Your task to perform on an android device: turn on javascript in the chrome app Image 0: 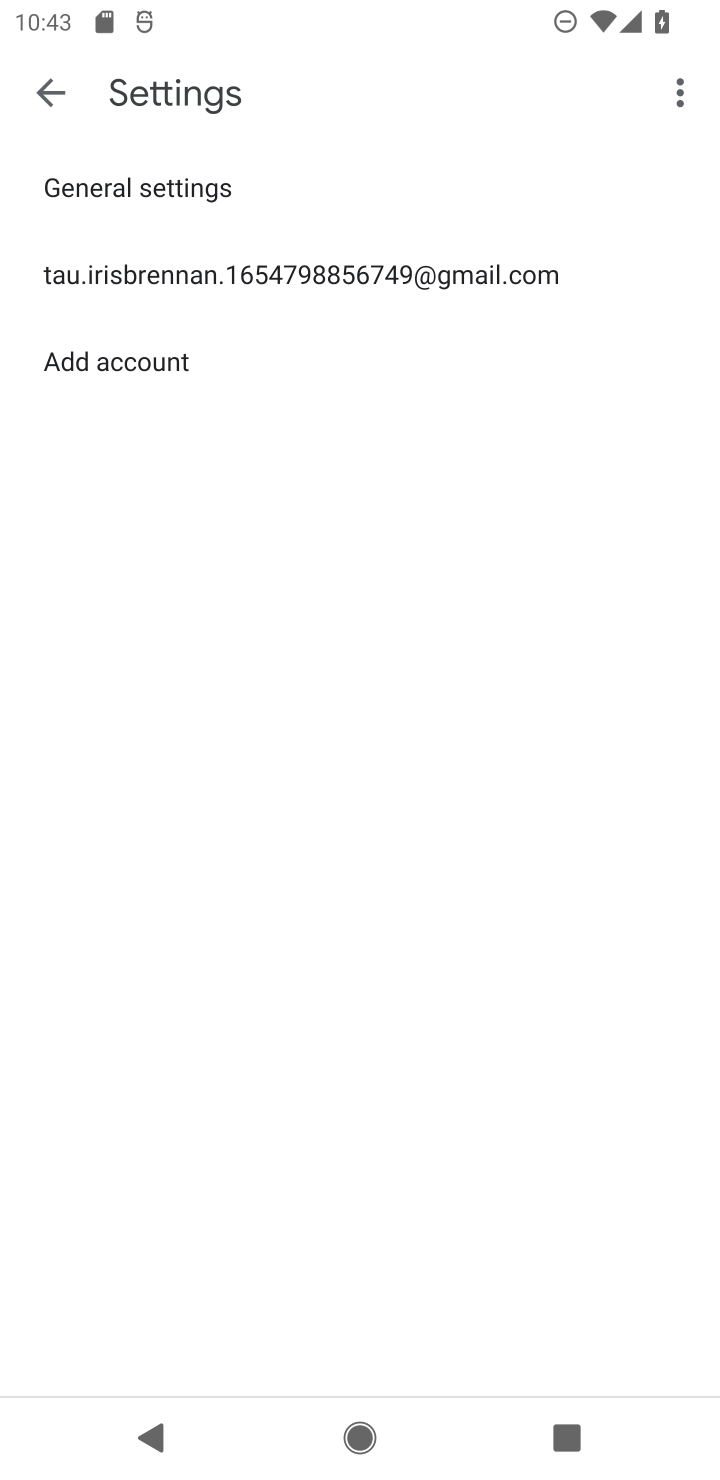
Step 0: press home button
Your task to perform on an android device: turn on javascript in the chrome app Image 1: 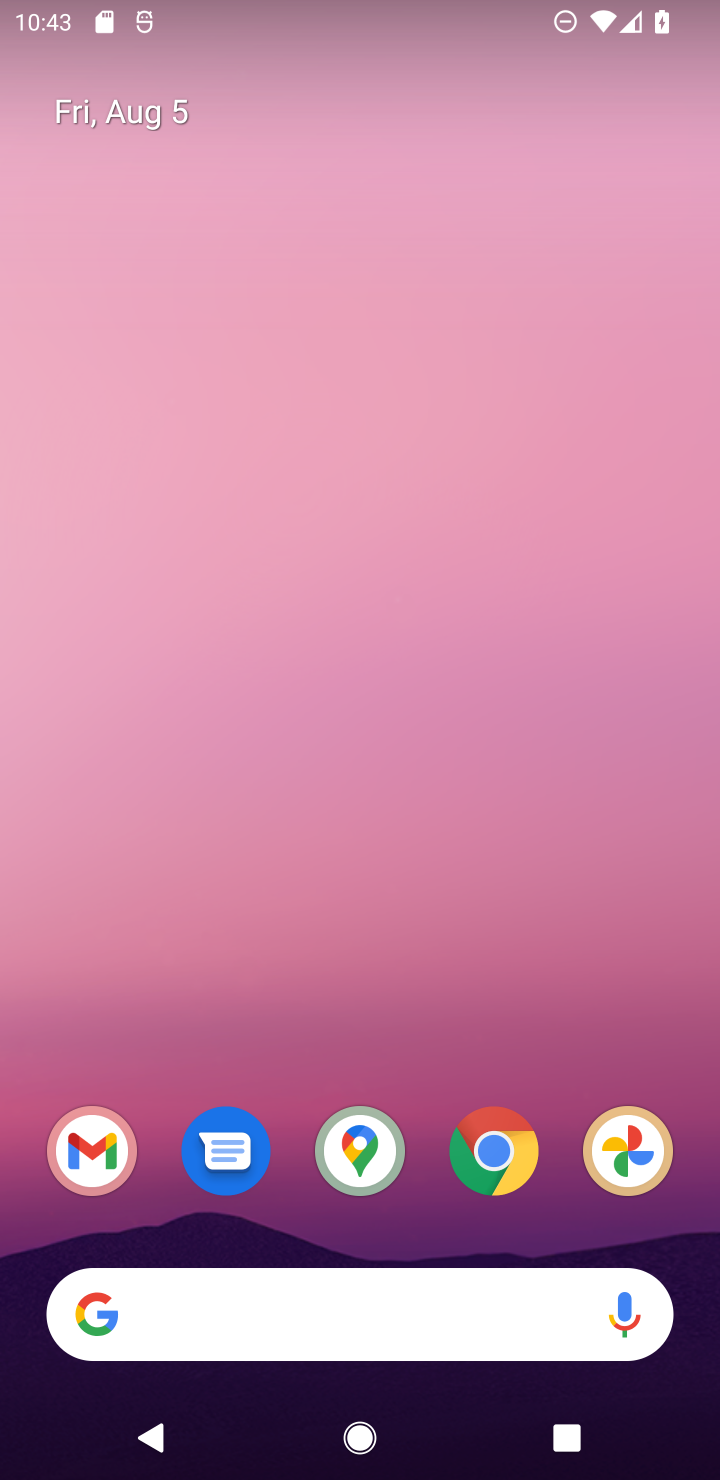
Step 1: click (507, 1151)
Your task to perform on an android device: turn on javascript in the chrome app Image 2: 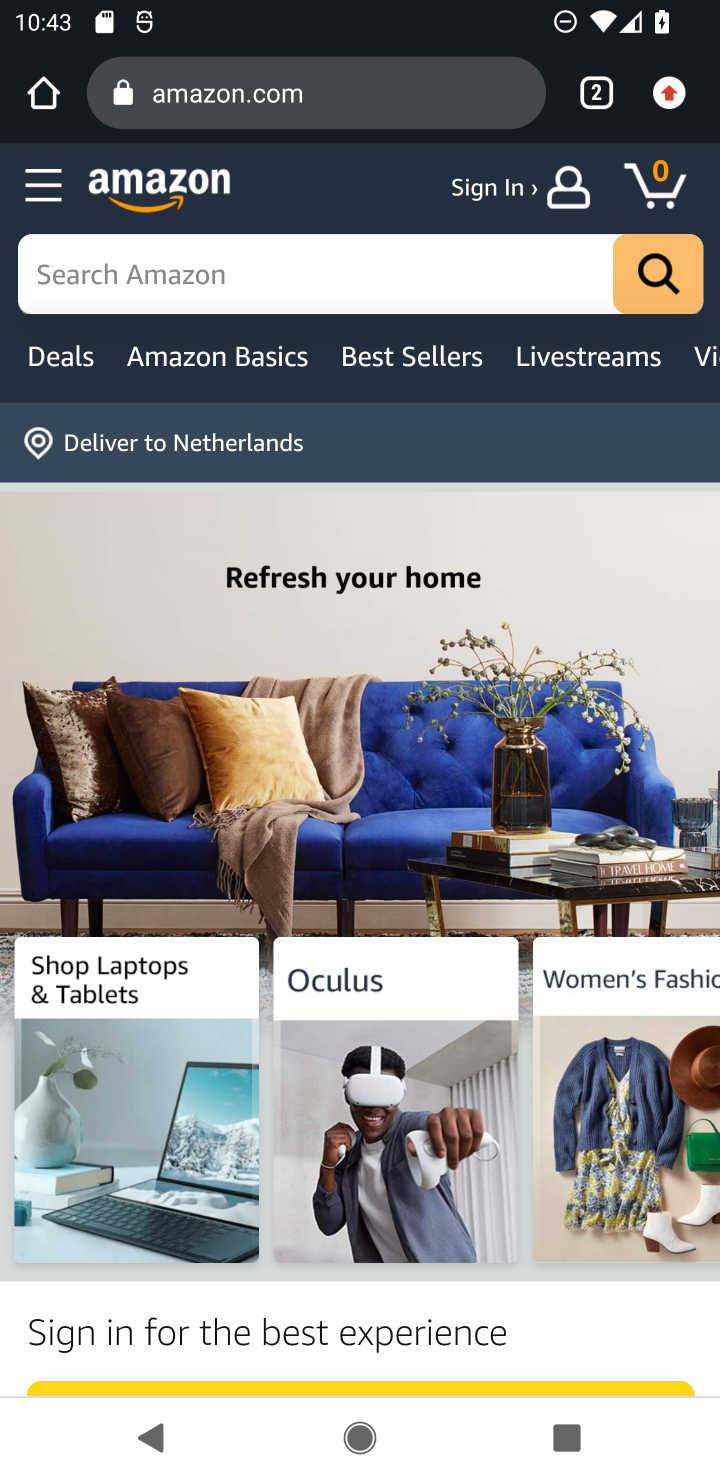
Step 2: click (670, 107)
Your task to perform on an android device: turn on javascript in the chrome app Image 3: 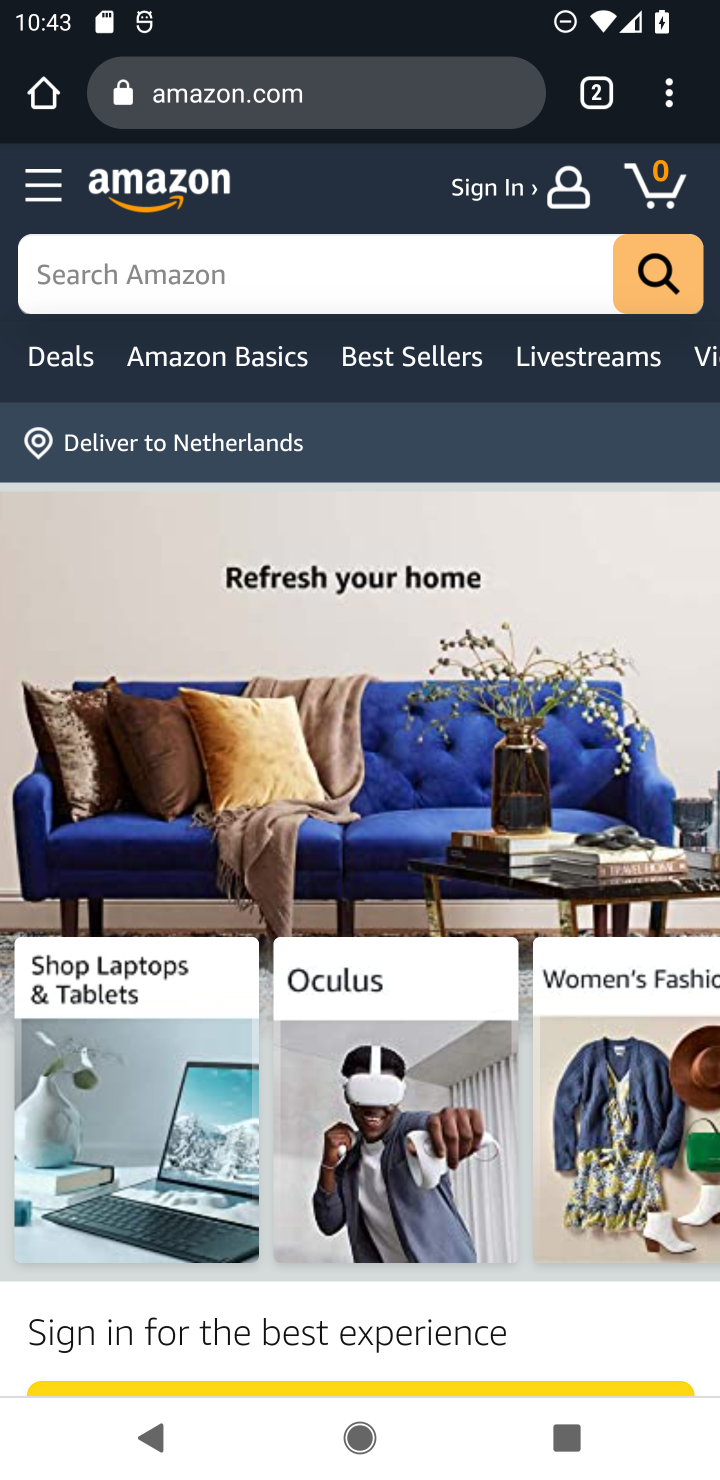
Step 3: click (670, 94)
Your task to perform on an android device: turn on javascript in the chrome app Image 4: 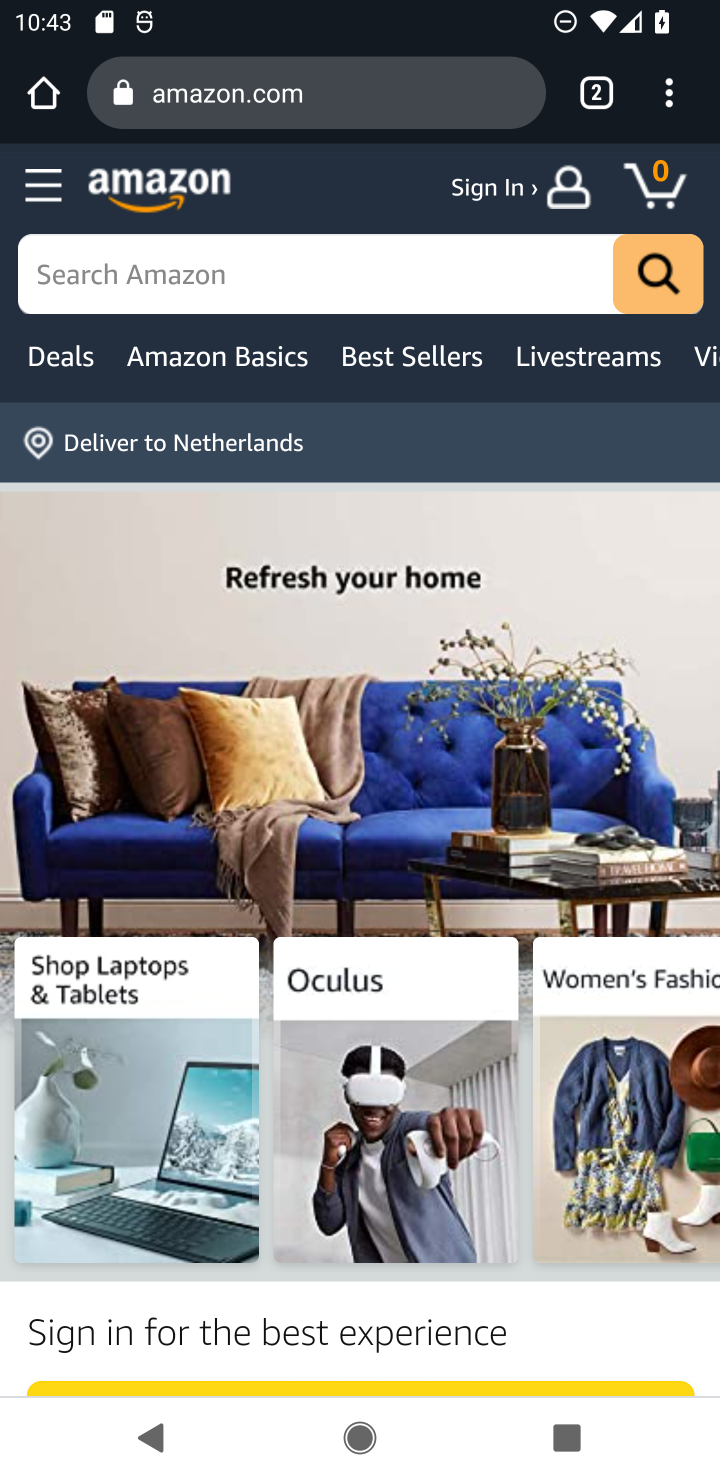
Step 4: click (670, 94)
Your task to perform on an android device: turn on javascript in the chrome app Image 5: 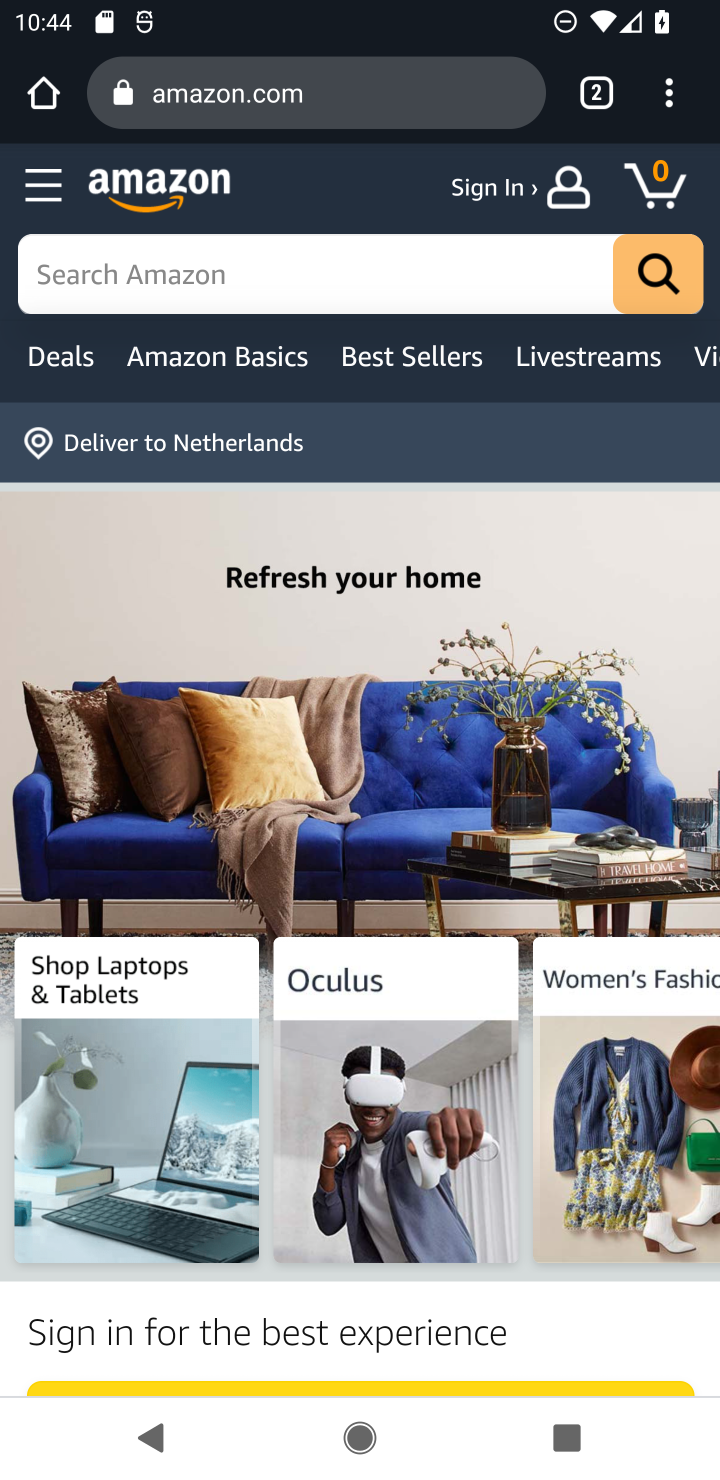
Step 5: click (670, 94)
Your task to perform on an android device: turn on javascript in the chrome app Image 6: 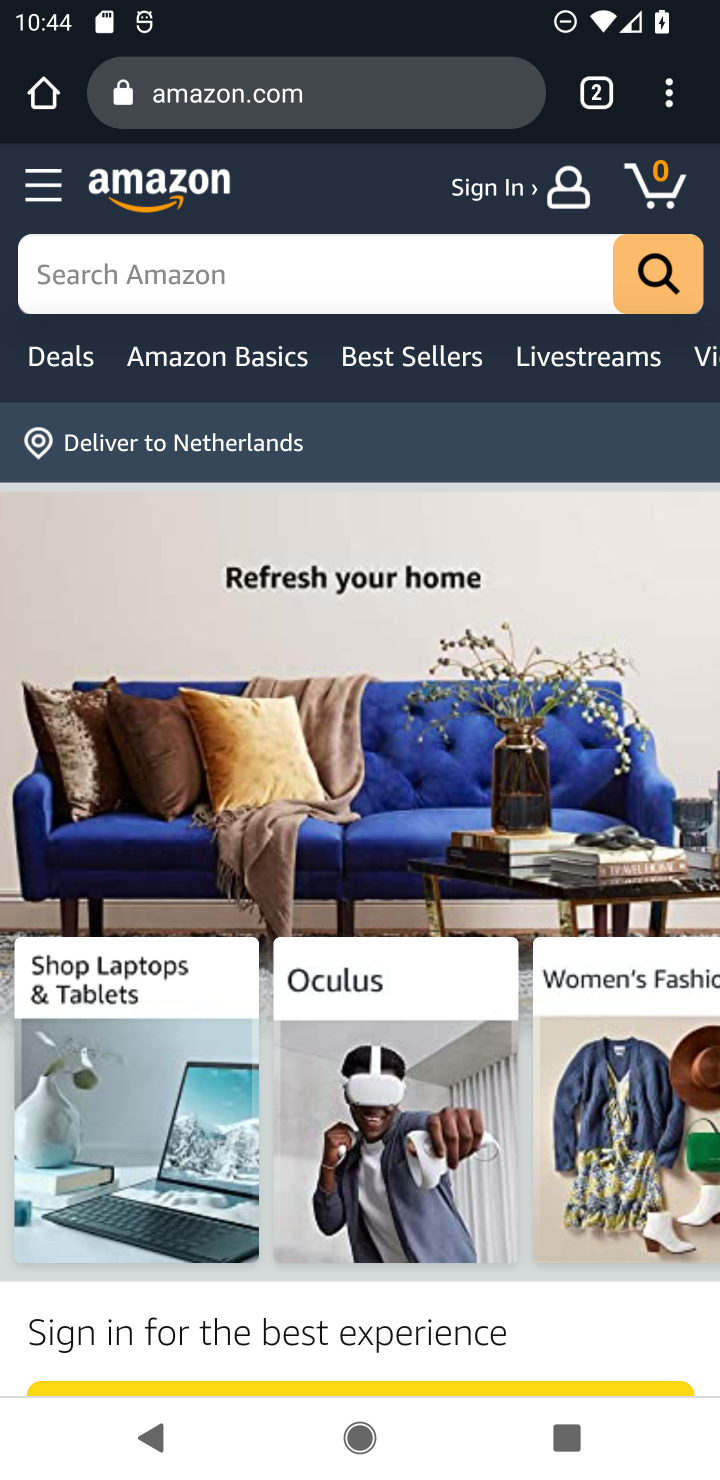
Step 6: click (675, 95)
Your task to perform on an android device: turn on javascript in the chrome app Image 7: 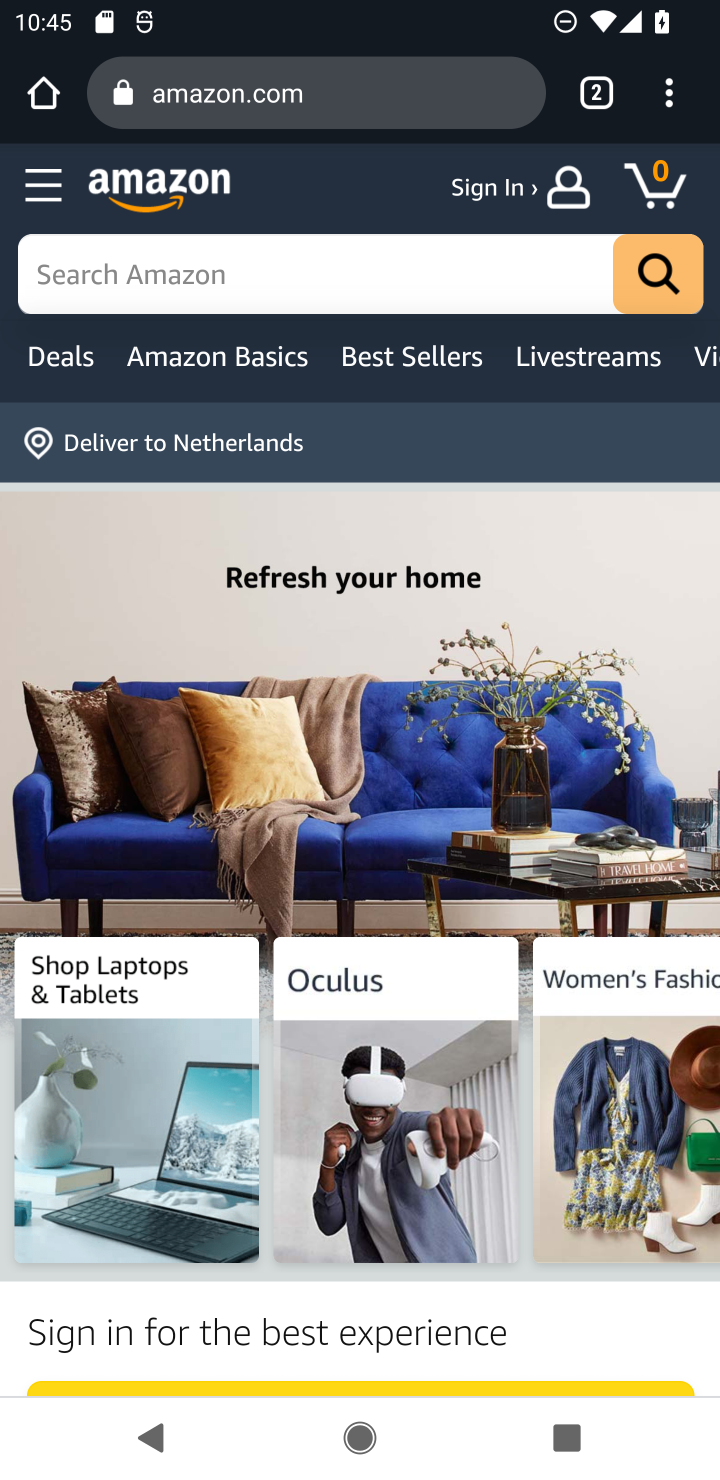
Step 7: click (676, 98)
Your task to perform on an android device: turn on javascript in the chrome app Image 8: 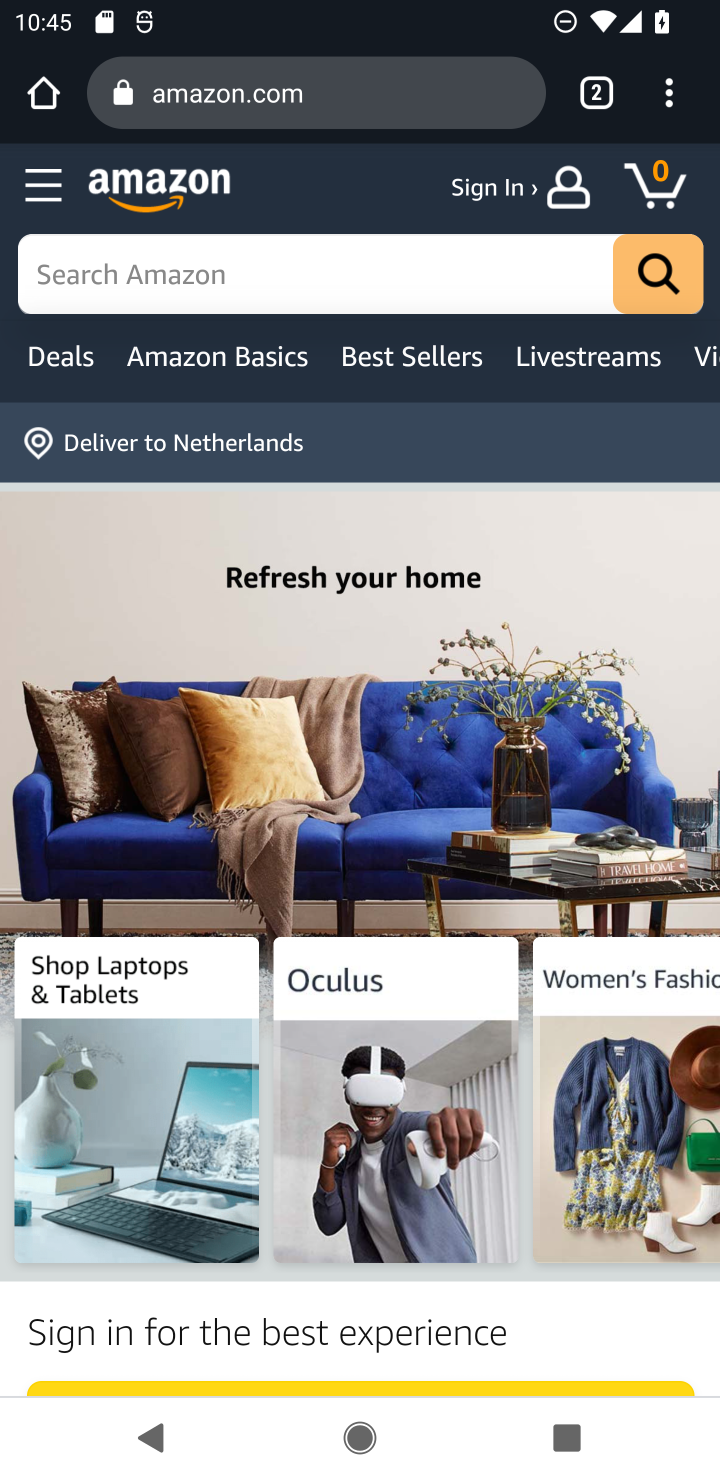
Step 8: click (676, 98)
Your task to perform on an android device: turn on javascript in the chrome app Image 9: 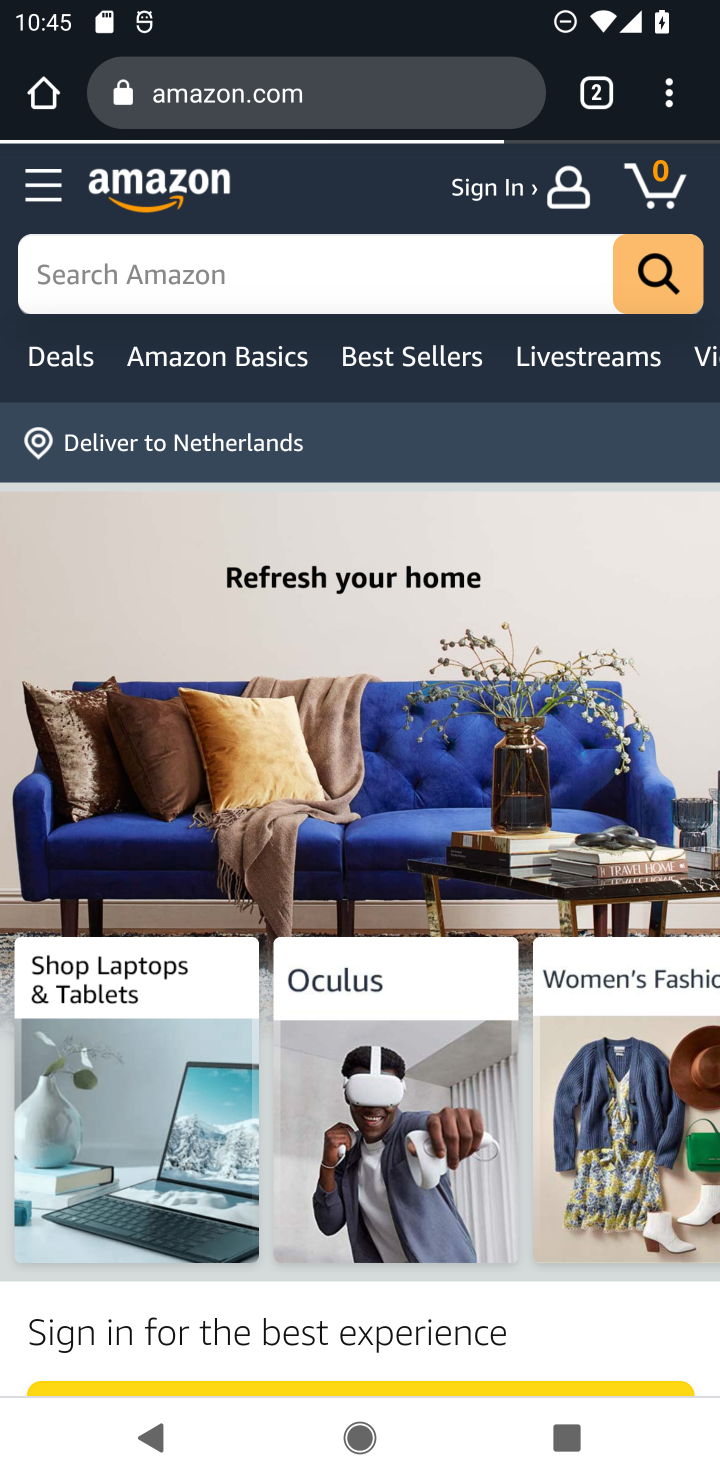
Step 9: click (599, 98)
Your task to perform on an android device: turn on javascript in the chrome app Image 10: 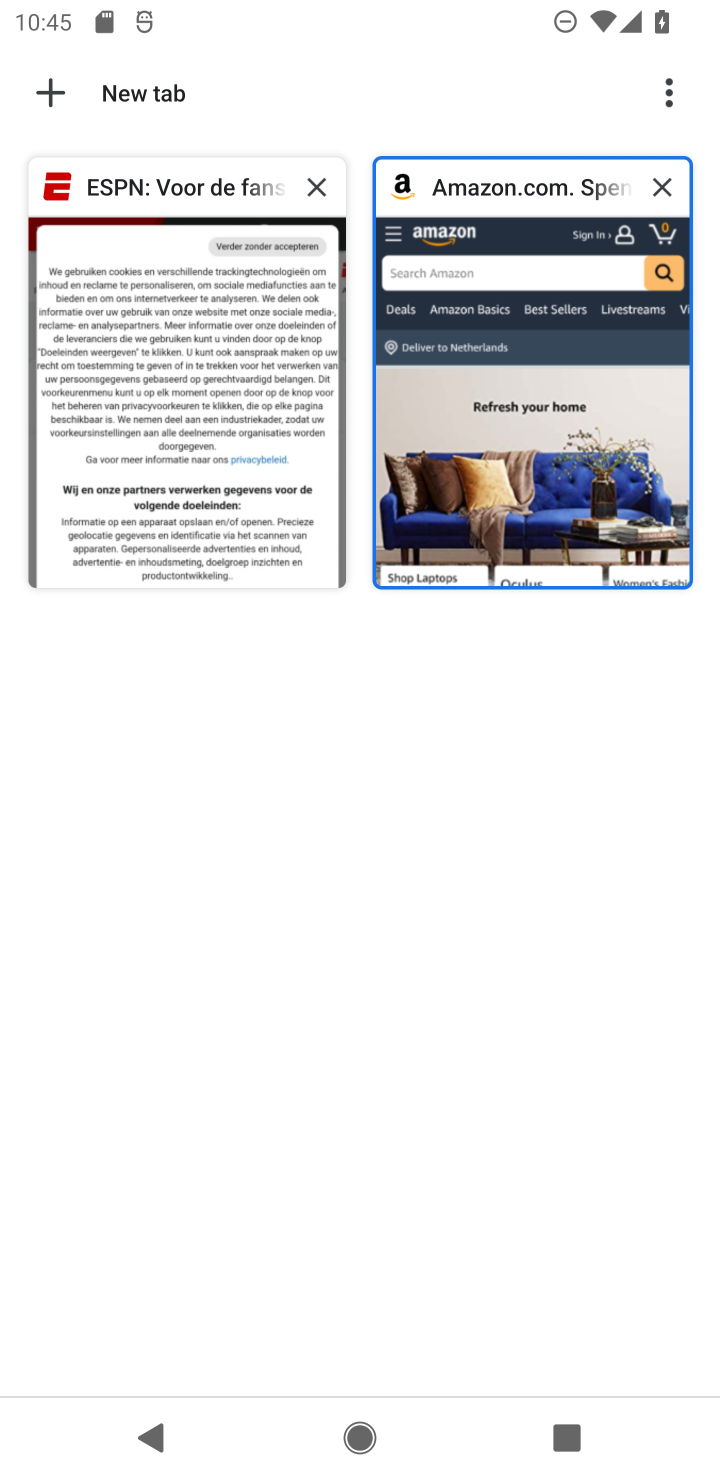
Step 10: click (665, 203)
Your task to perform on an android device: turn on javascript in the chrome app Image 11: 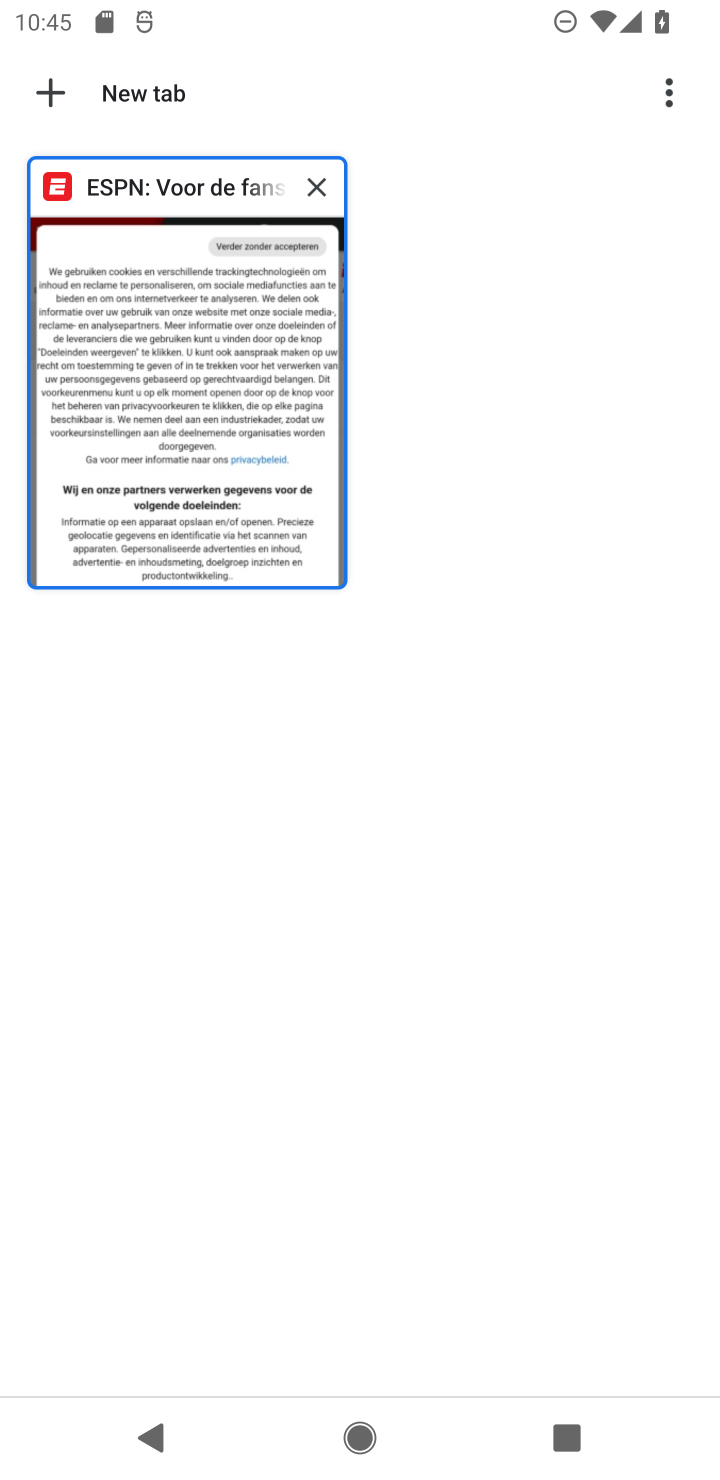
Step 11: click (312, 182)
Your task to perform on an android device: turn on javascript in the chrome app Image 12: 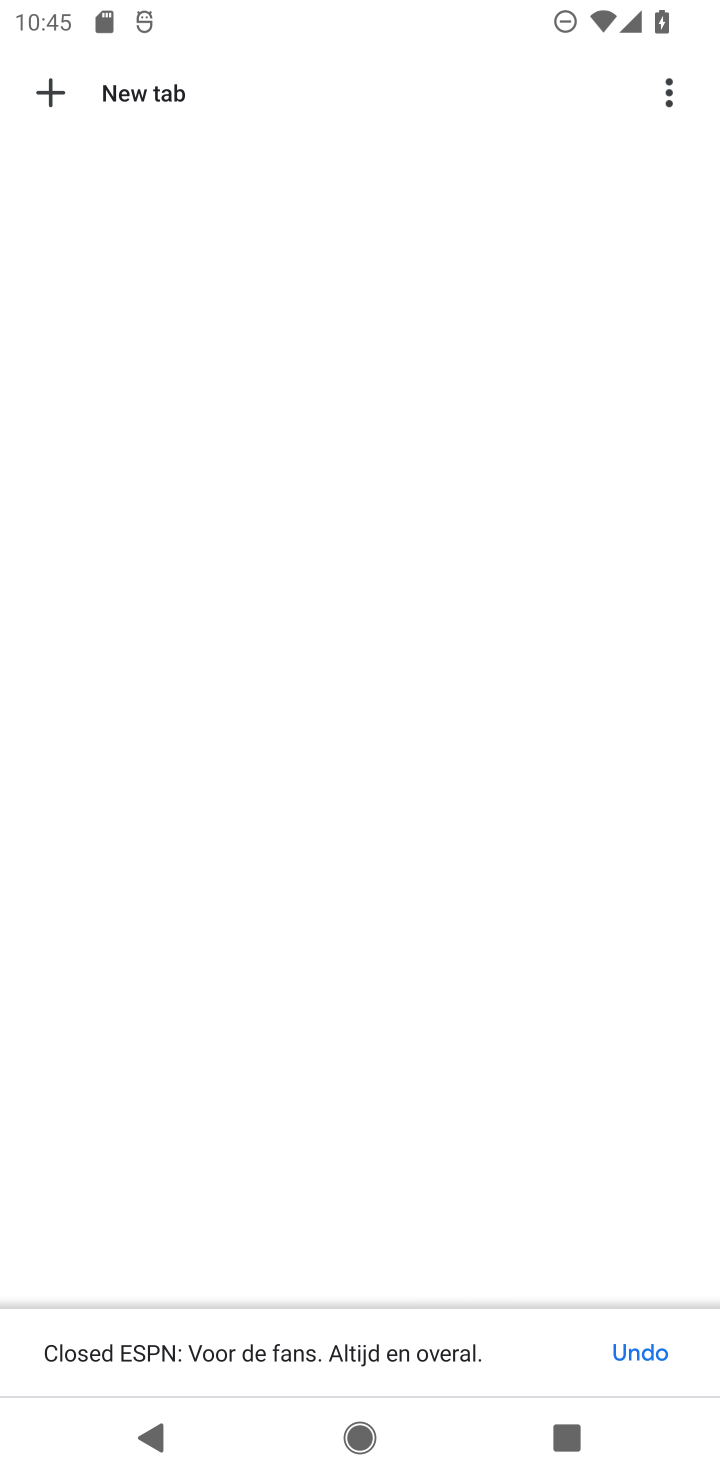
Step 12: click (40, 106)
Your task to perform on an android device: turn on javascript in the chrome app Image 13: 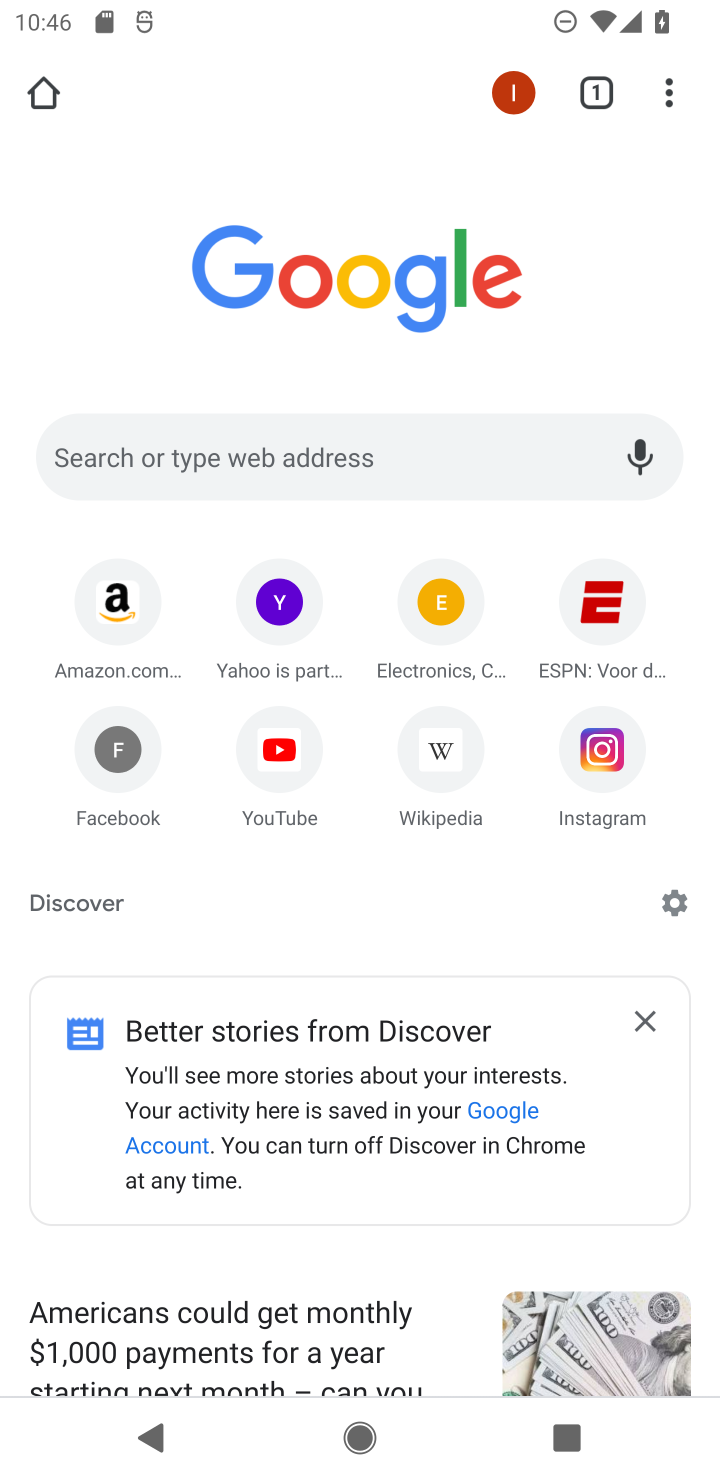
Step 13: click (666, 97)
Your task to perform on an android device: turn on javascript in the chrome app Image 14: 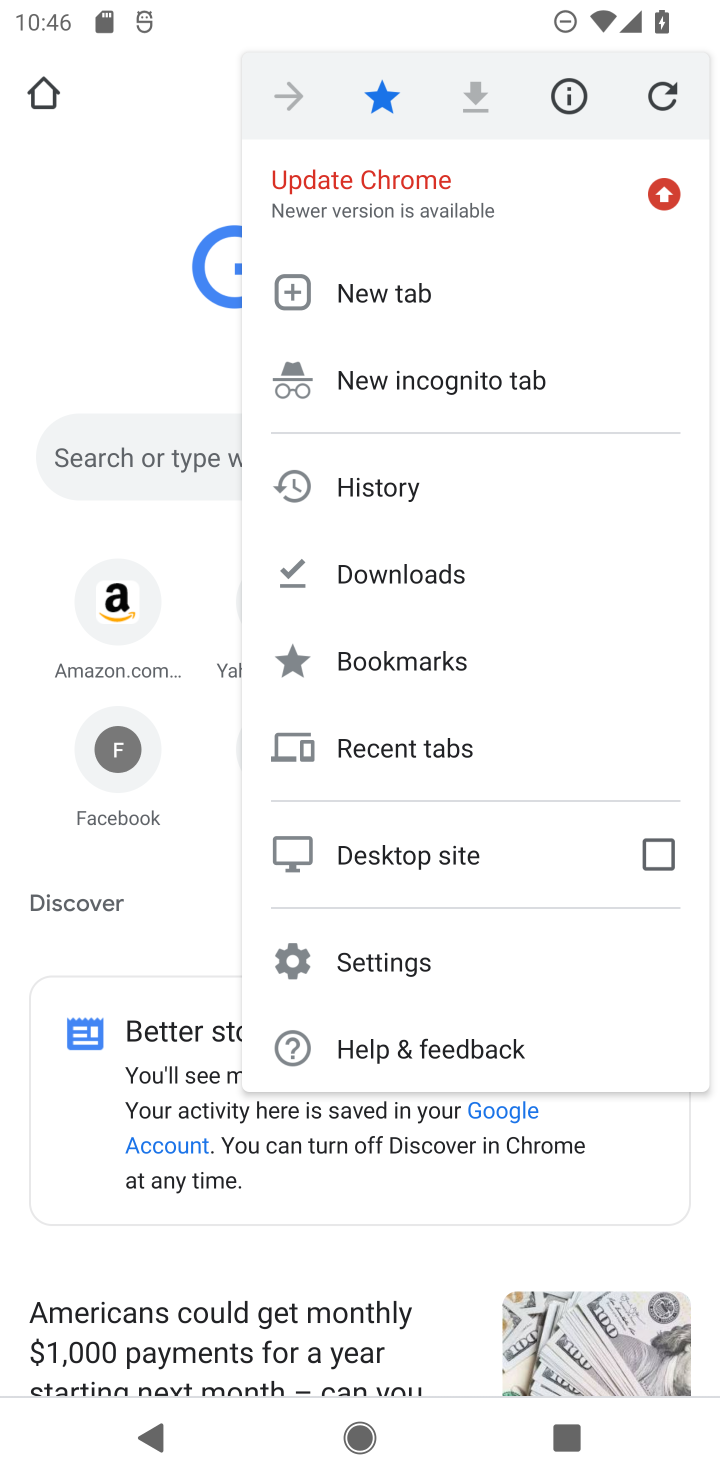
Step 14: click (371, 957)
Your task to perform on an android device: turn on javascript in the chrome app Image 15: 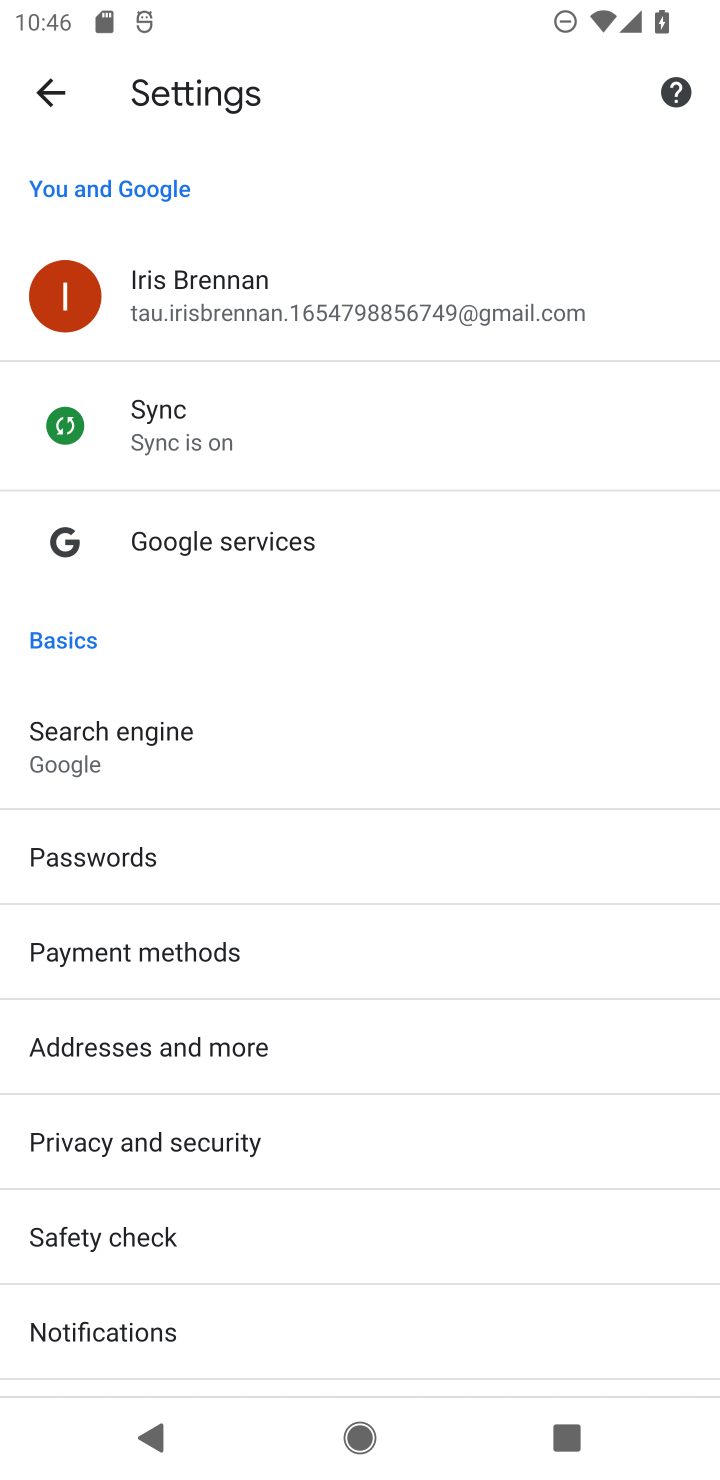
Step 15: drag from (212, 1205) to (267, 727)
Your task to perform on an android device: turn on javascript in the chrome app Image 16: 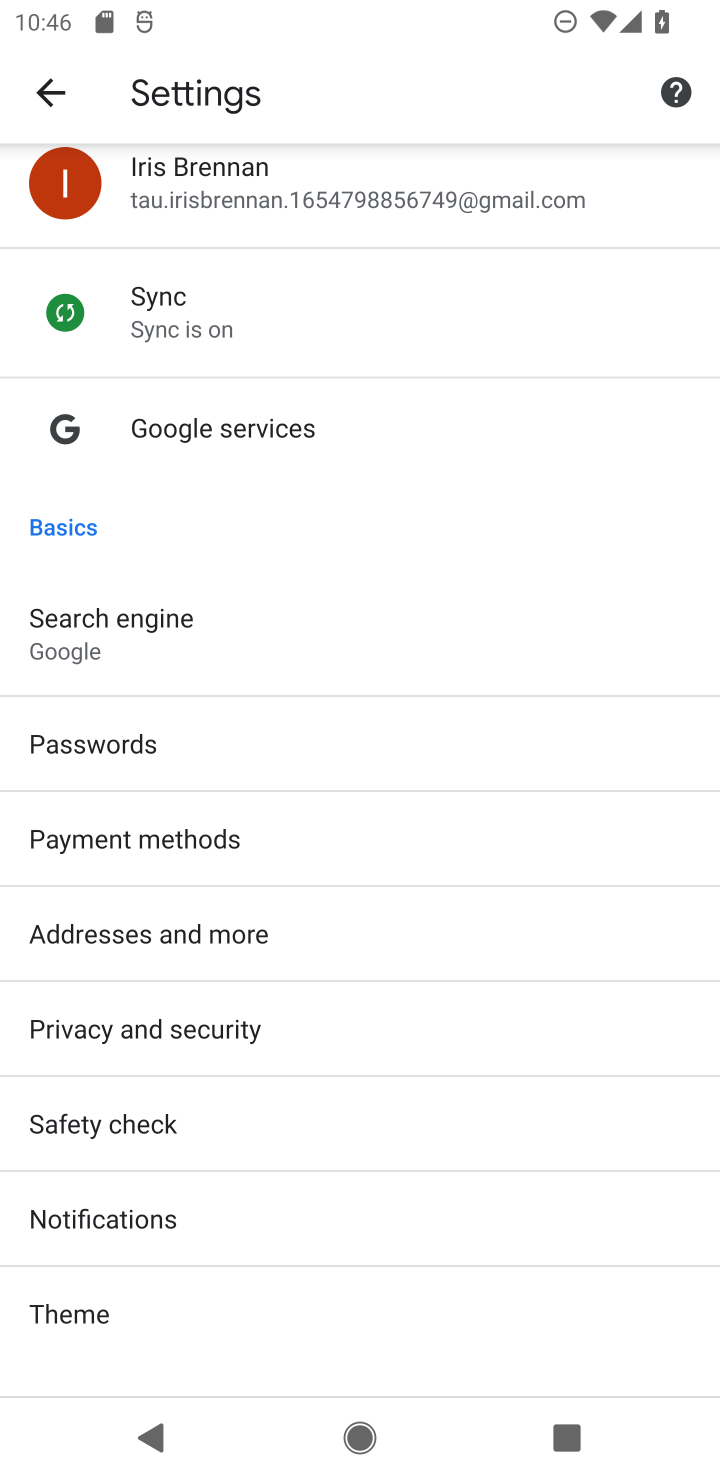
Step 16: click (102, 1247)
Your task to perform on an android device: turn on javascript in the chrome app Image 17: 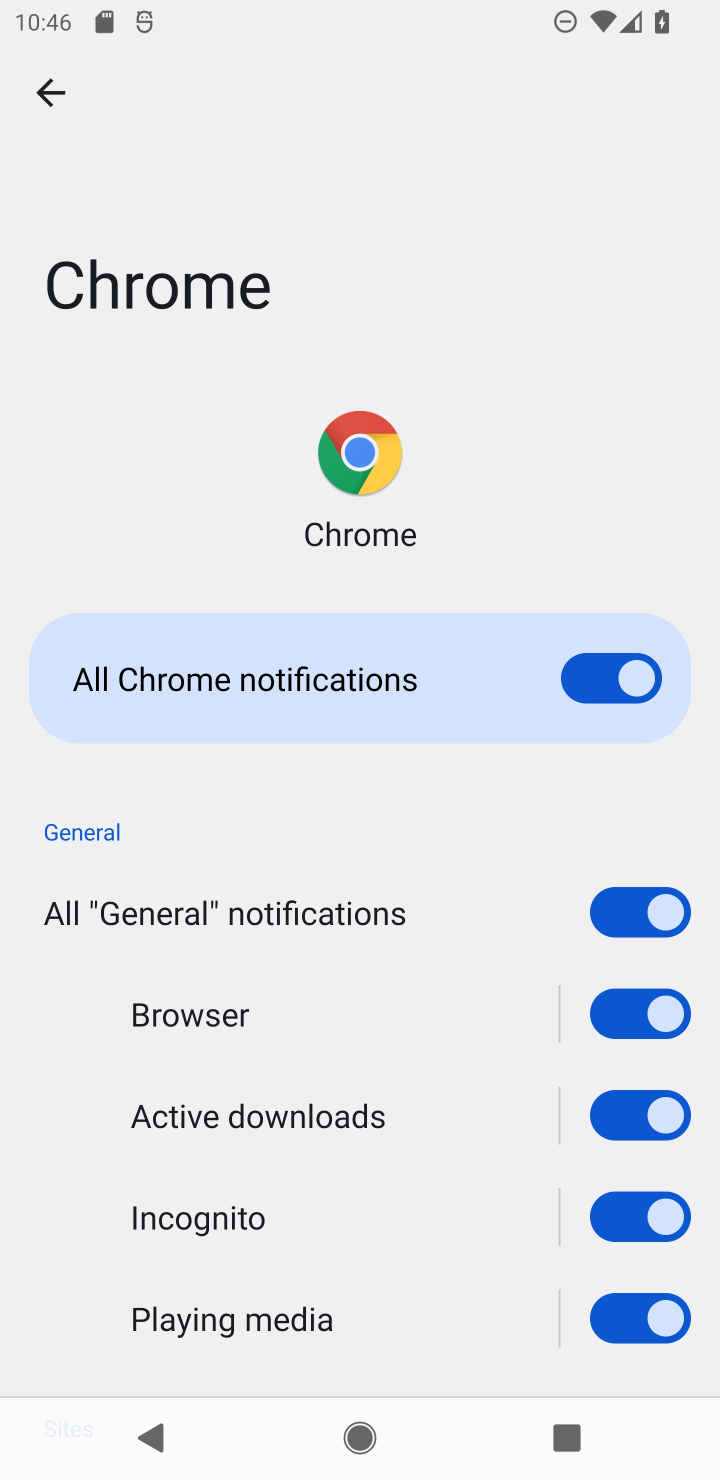
Step 17: click (61, 94)
Your task to perform on an android device: turn on javascript in the chrome app Image 18: 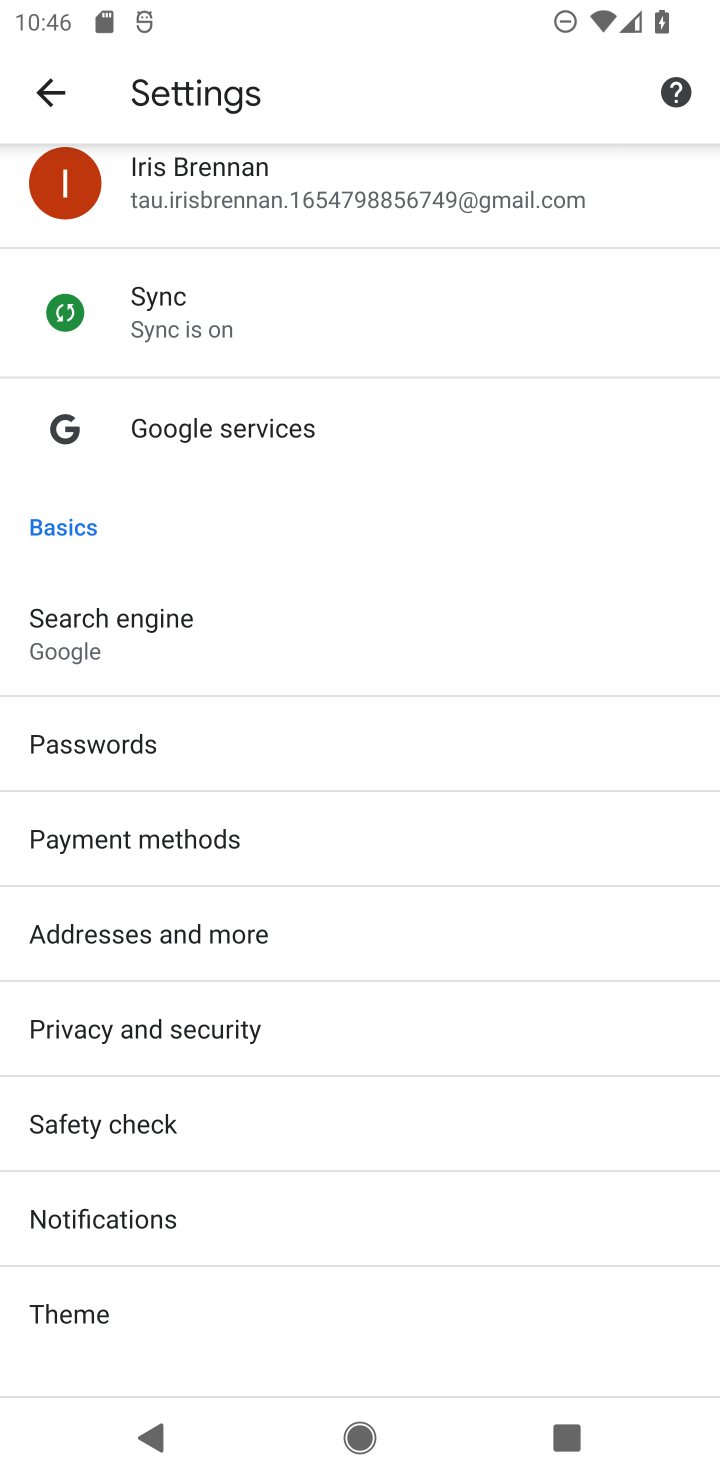
Step 18: click (118, 1258)
Your task to perform on an android device: turn on javascript in the chrome app Image 19: 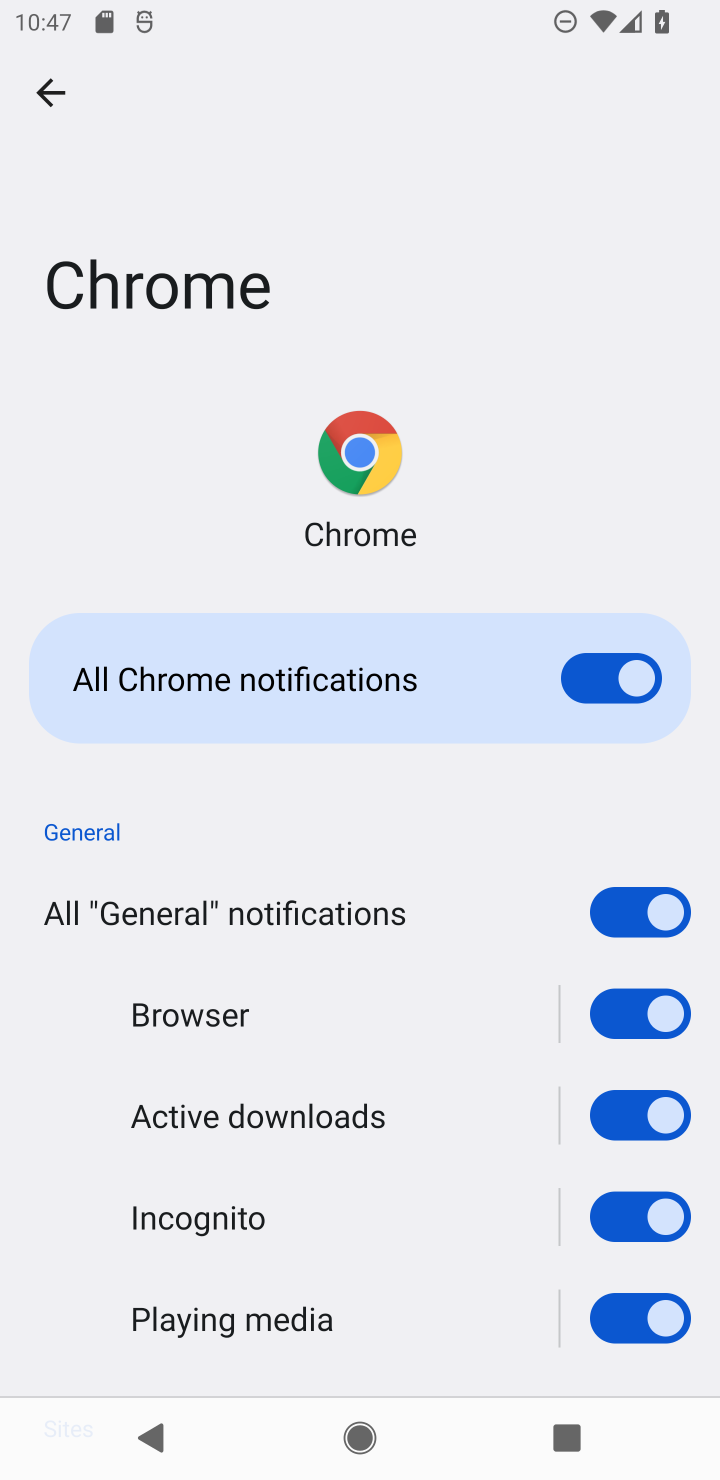
Step 19: click (55, 115)
Your task to perform on an android device: turn on javascript in the chrome app Image 20: 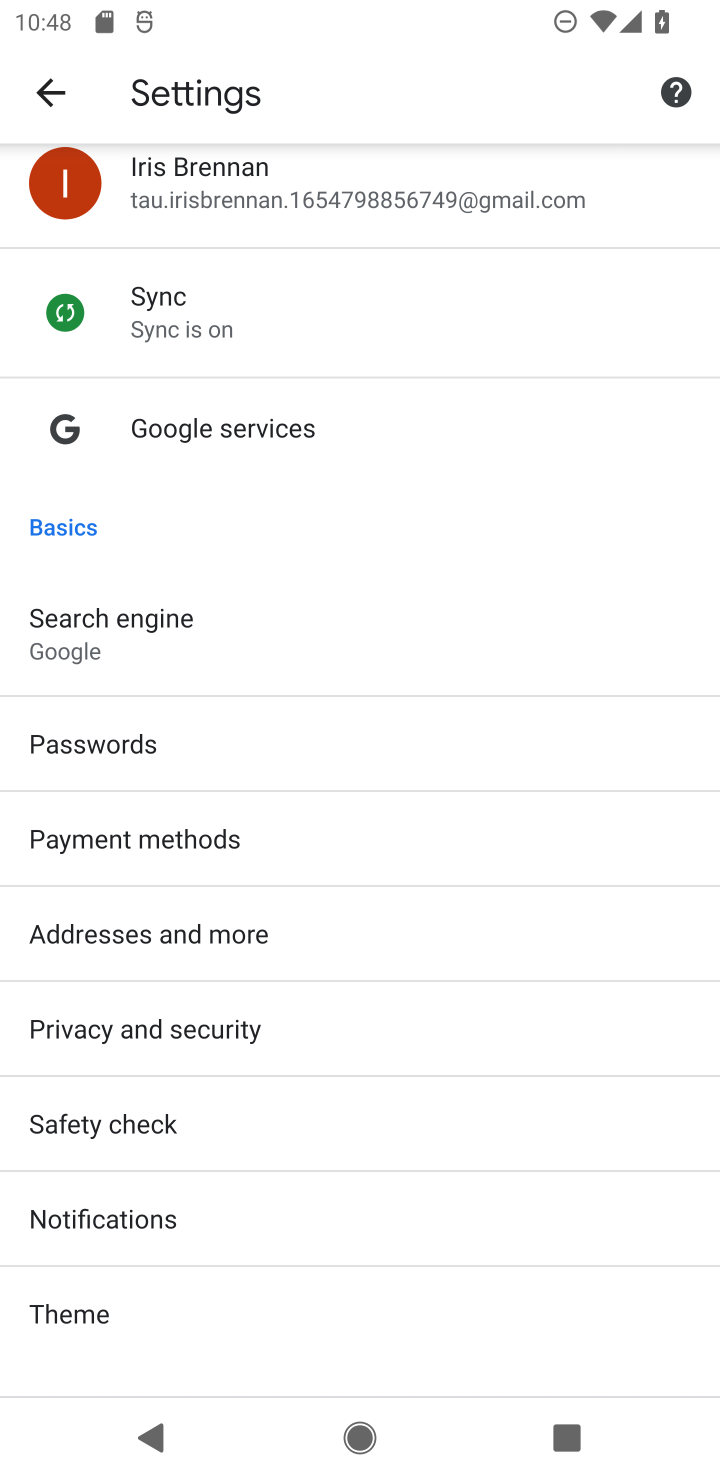
Step 20: drag from (309, 1149) to (275, 437)
Your task to perform on an android device: turn on javascript in the chrome app Image 21: 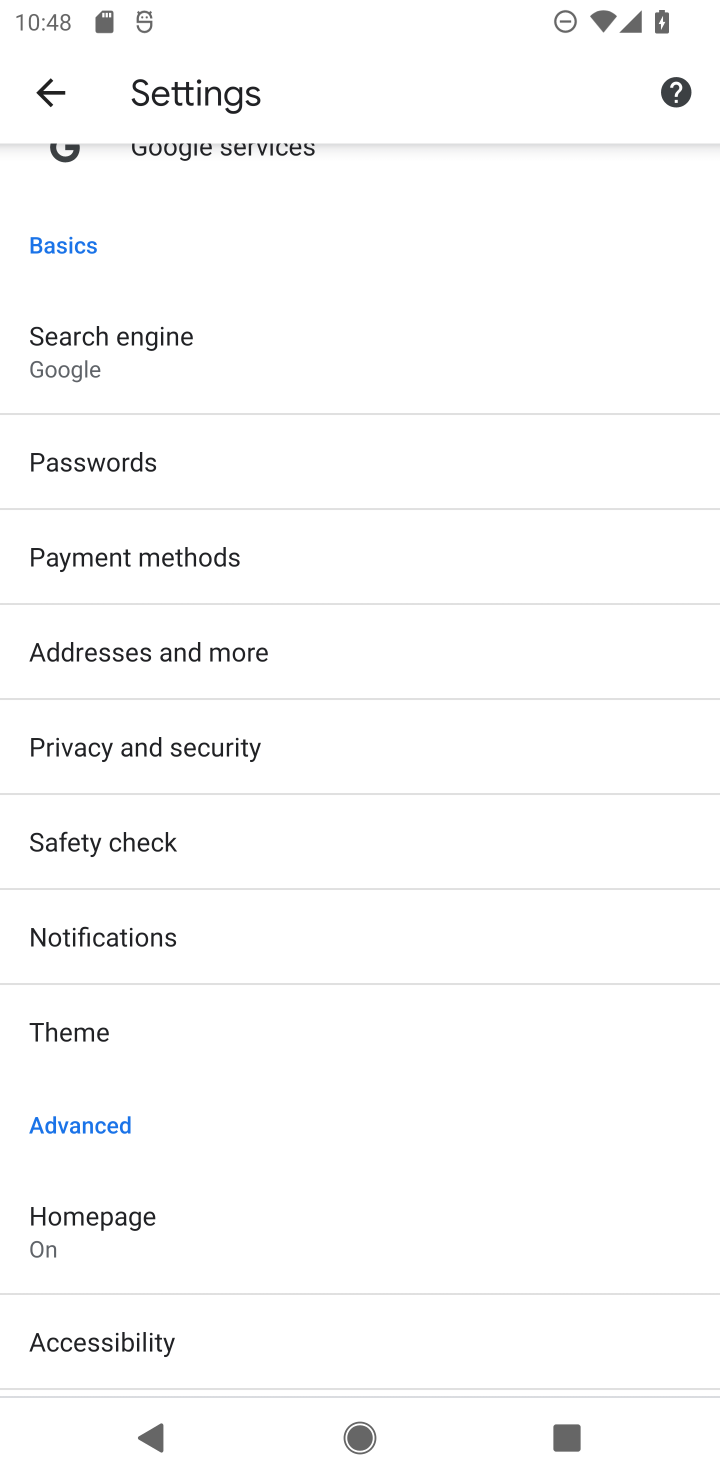
Step 21: drag from (338, 1234) to (319, 386)
Your task to perform on an android device: turn on javascript in the chrome app Image 22: 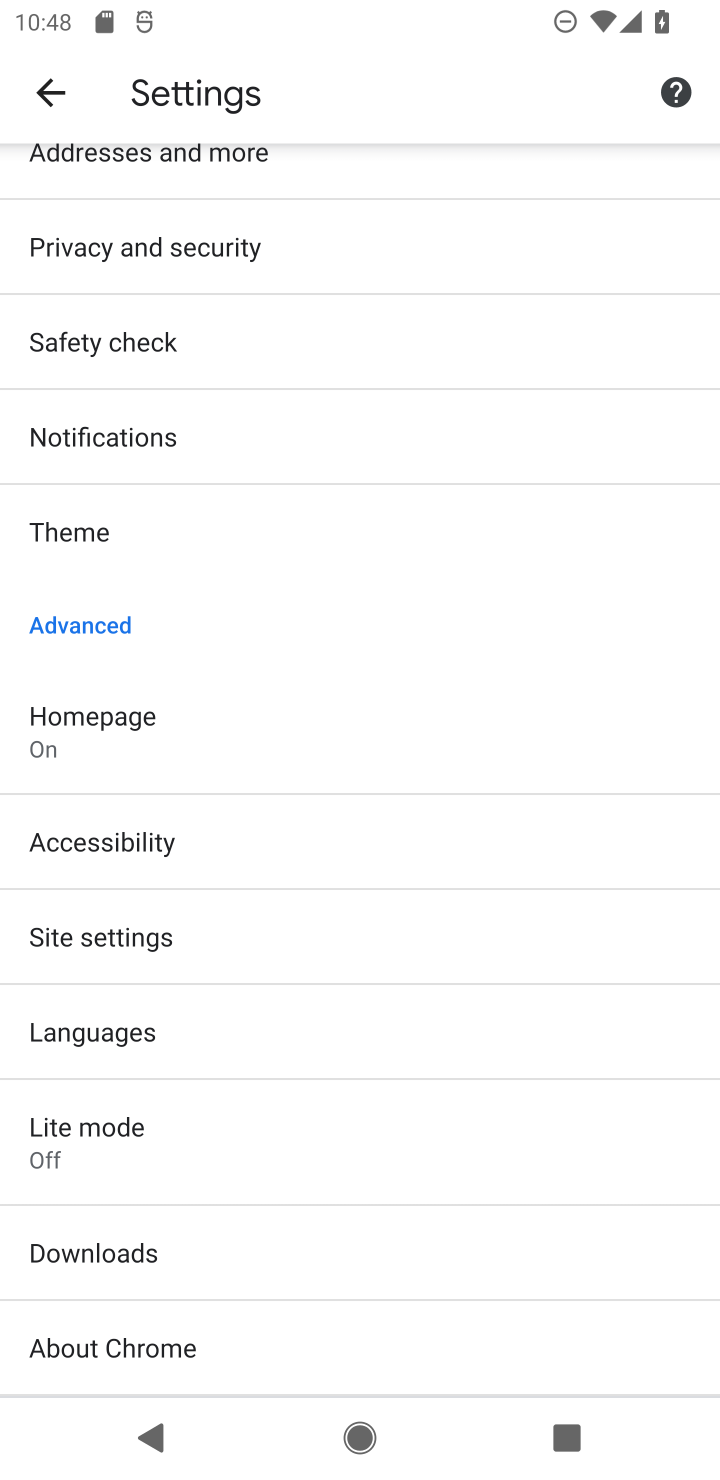
Step 22: click (134, 932)
Your task to perform on an android device: turn on javascript in the chrome app Image 23: 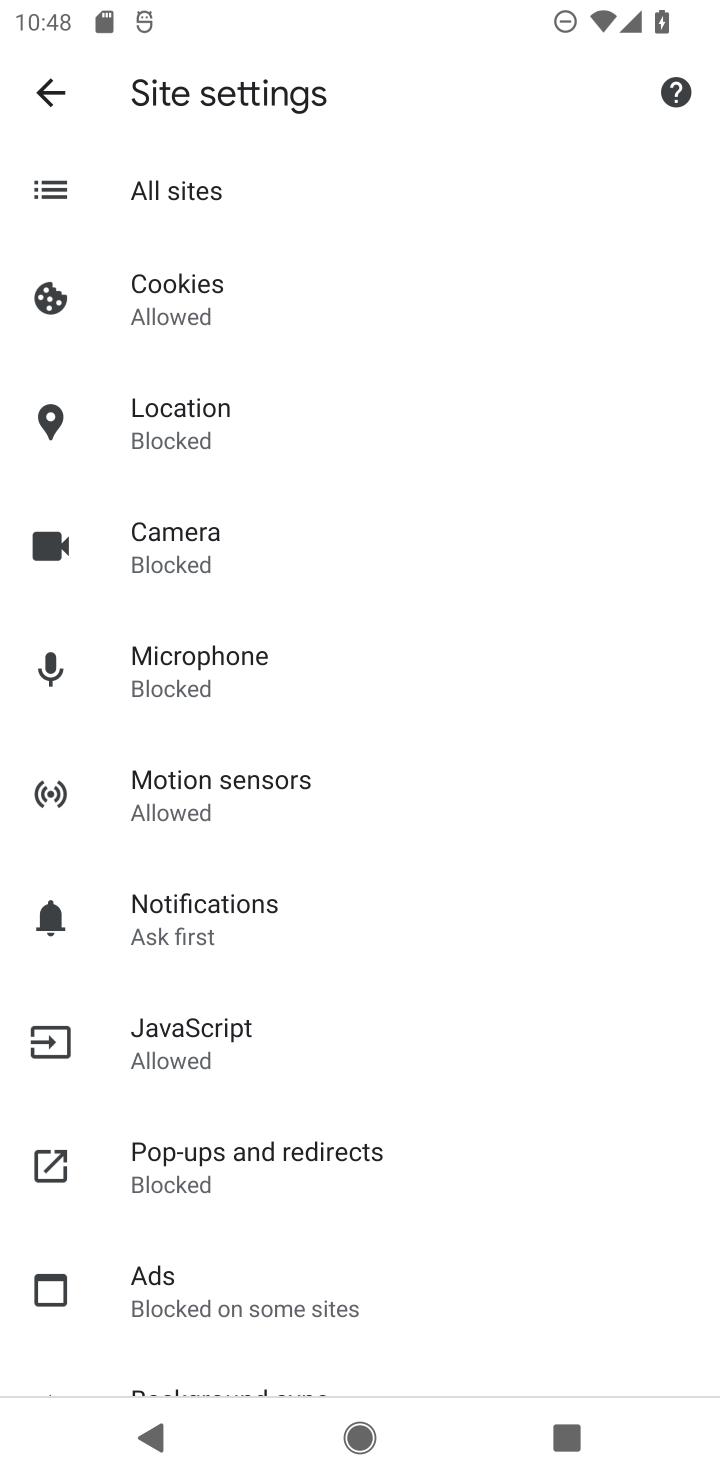
Step 23: click (213, 1037)
Your task to perform on an android device: turn on javascript in the chrome app Image 24: 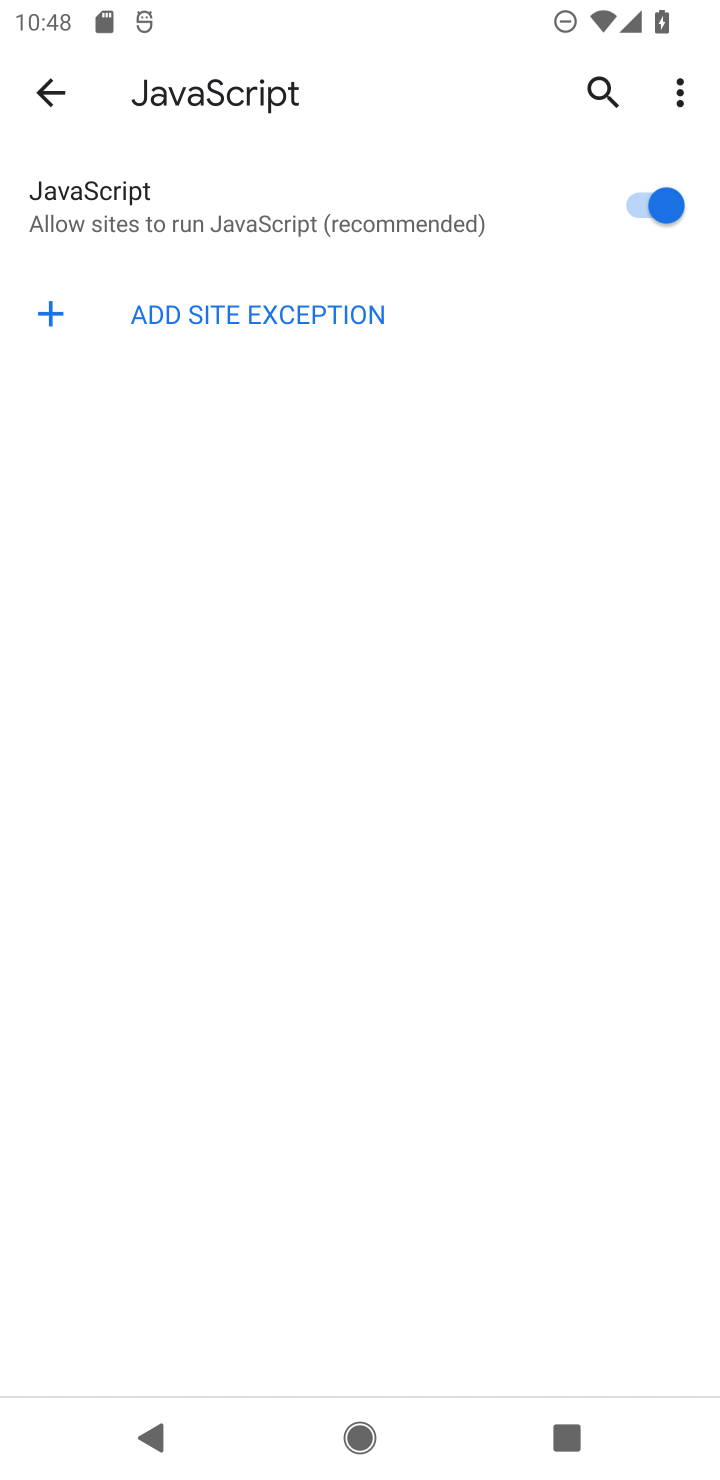
Step 24: task complete